Your task to perform on an android device: Set the phone to "Do not disturb". Image 0: 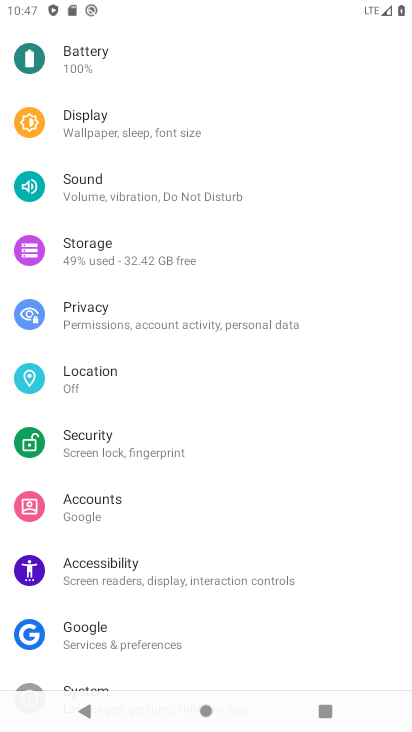
Step 0: click (241, 188)
Your task to perform on an android device: Set the phone to "Do not disturb". Image 1: 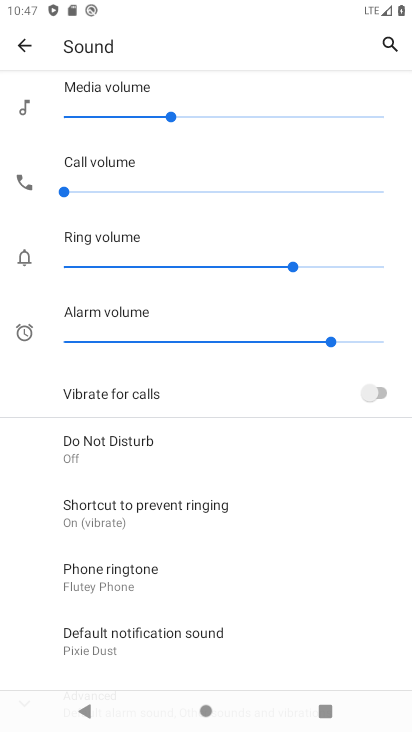
Step 1: click (151, 441)
Your task to perform on an android device: Set the phone to "Do not disturb". Image 2: 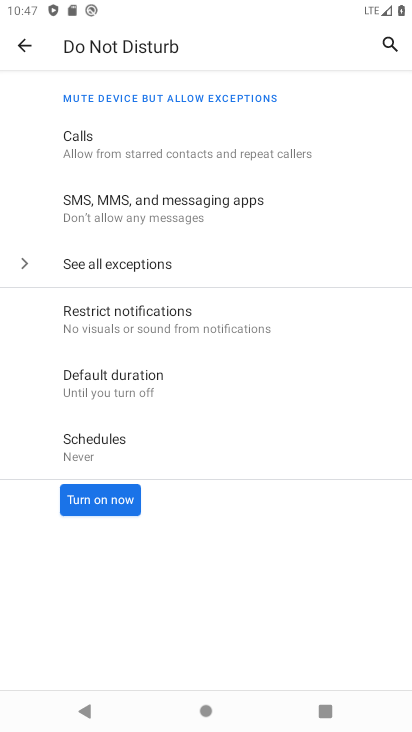
Step 2: click (122, 505)
Your task to perform on an android device: Set the phone to "Do not disturb". Image 3: 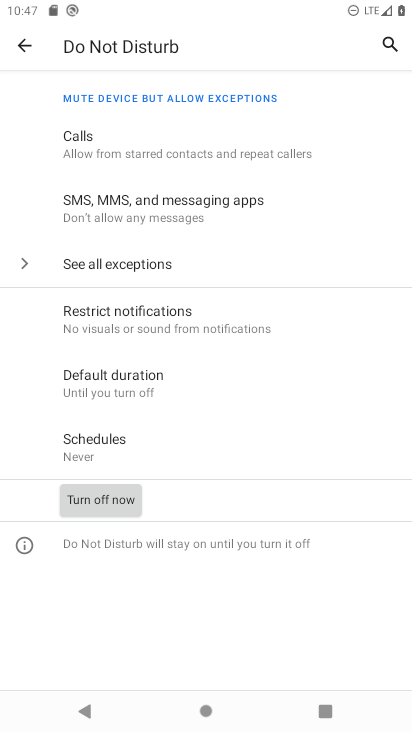
Step 3: task complete